Your task to perform on an android device: clear all cookies in the chrome app Image 0: 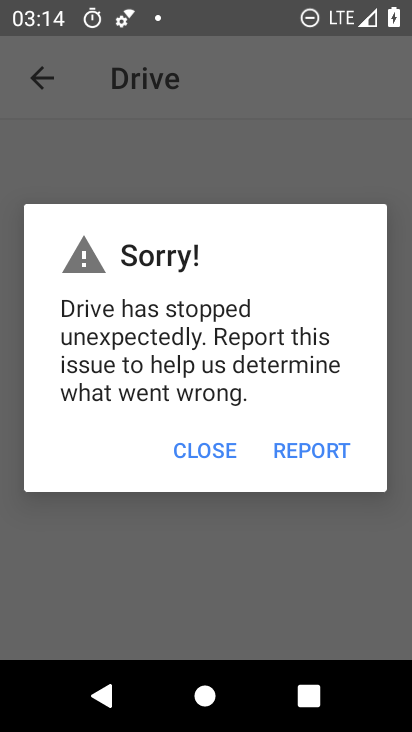
Step 0: press home button
Your task to perform on an android device: clear all cookies in the chrome app Image 1: 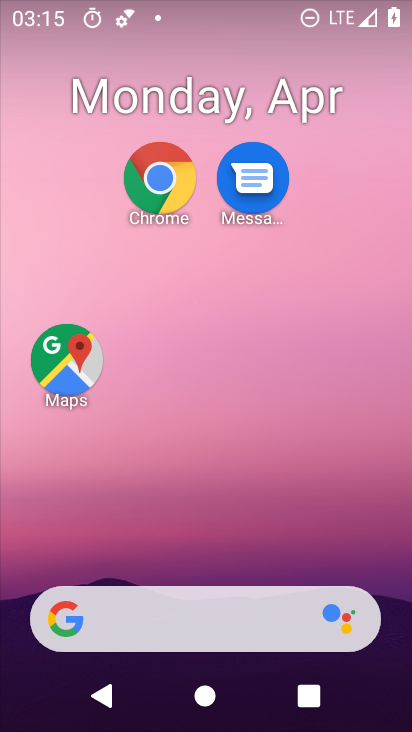
Step 1: drag from (277, 547) to (251, 0)
Your task to perform on an android device: clear all cookies in the chrome app Image 2: 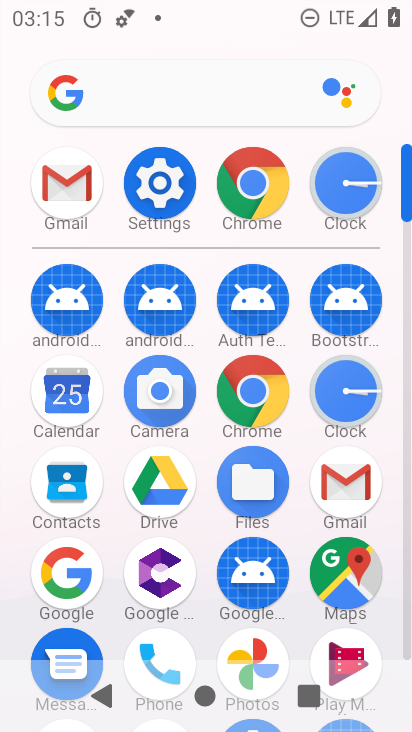
Step 2: click (266, 405)
Your task to perform on an android device: clear all cookies in the chrome app Image 3: 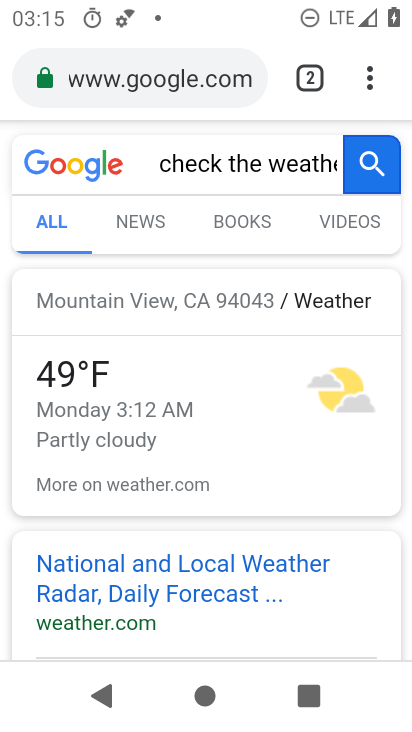
Step 3: drag from (367, 74) to (118, 525)
Your task to perform on an android device: clear all cookies in the chrome app Image 4: 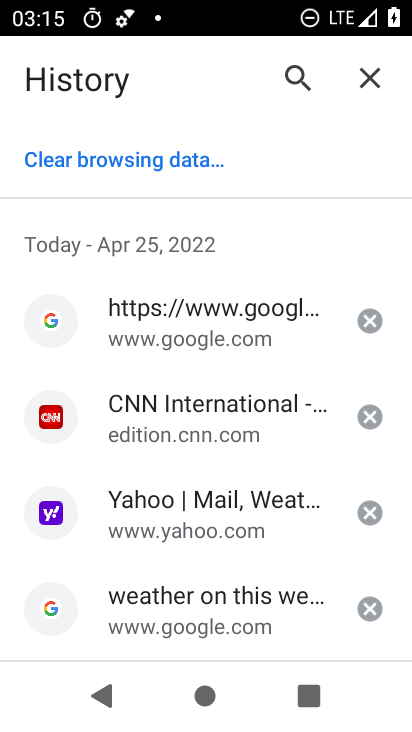
Step 4: click (130, 154)
Your task to perform on an android device: clear all cookies in the chrome app Image 5: 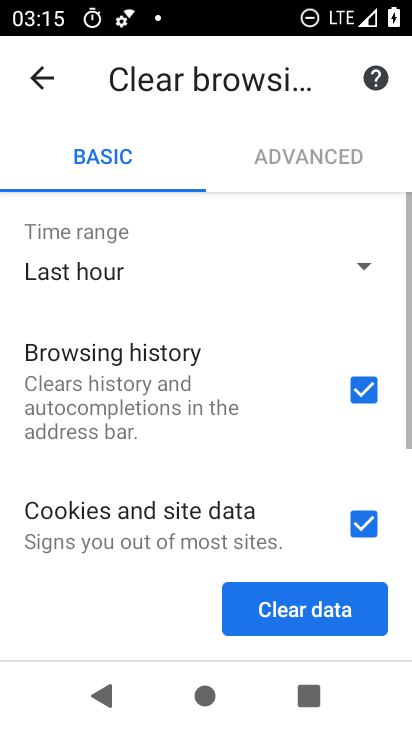
Step 5: click (276, 620)
Your task to perform on an android device: clear all cookies in the chrome app Image 6: 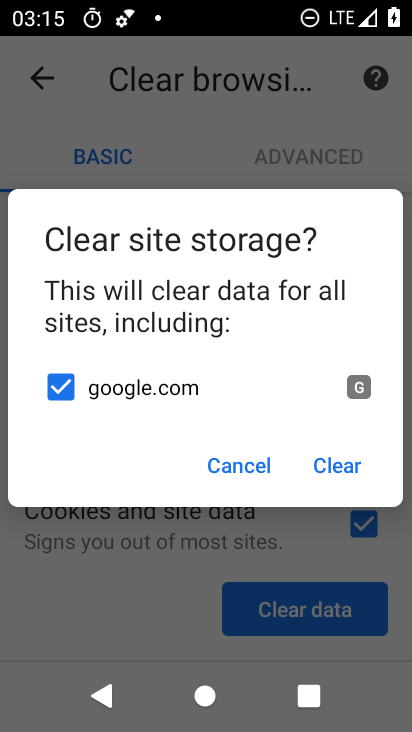
Step 6: click (330, 460)
Your task to perform on an android device: clear all cookies in the chrome app Image 7: 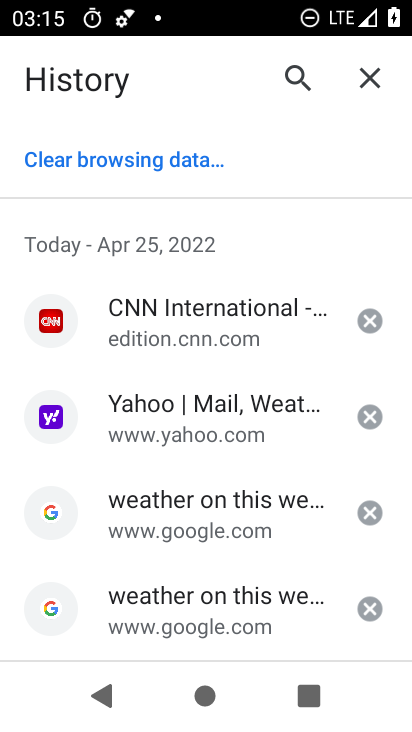
Step 7: click (370, 319)
Your task to perform on an android device: clear all cookies in the chrome app Image 8: 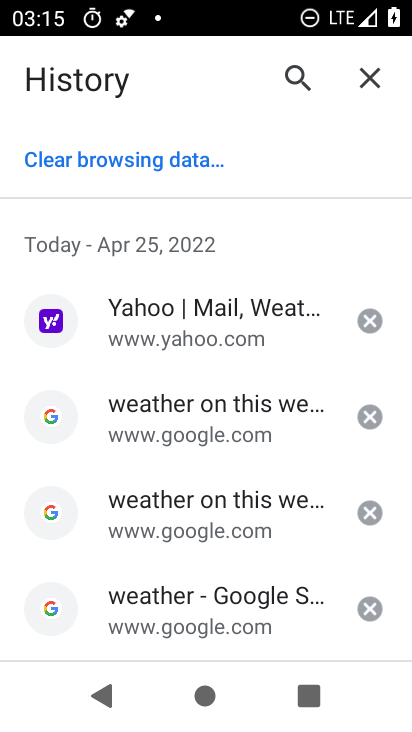
Step 8: click (366, 320)
Your task to perform on an android device: clear all cookies in the chrome app Image 9: 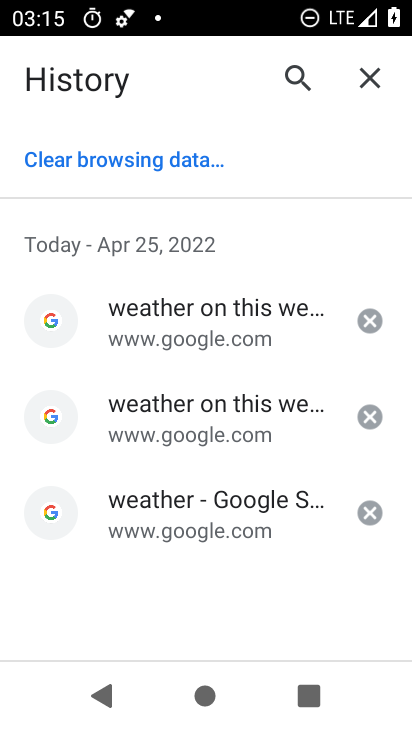
Step 9: click (366, 320)
Your task to perform on an android device: clear all cookies in the chrome app Image 10: 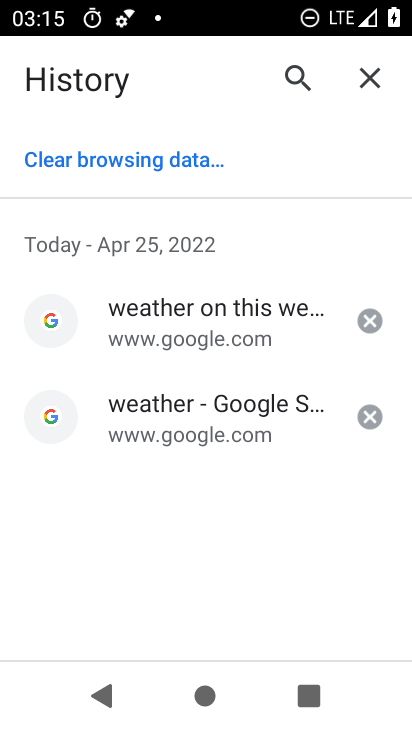
Step 10: click (367, 313)
Your task to perform on an android device: clear all cookies in the chrome app Image 11: 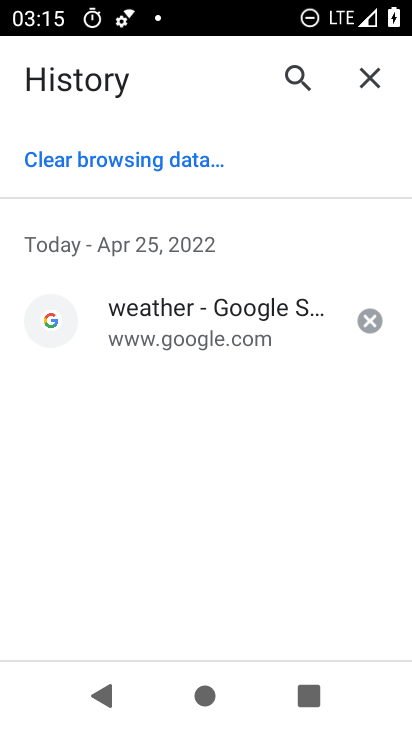
Step 11: click (370, 318)
Your task to perform on an android device: clear all cookies in the chrome app Image 12: 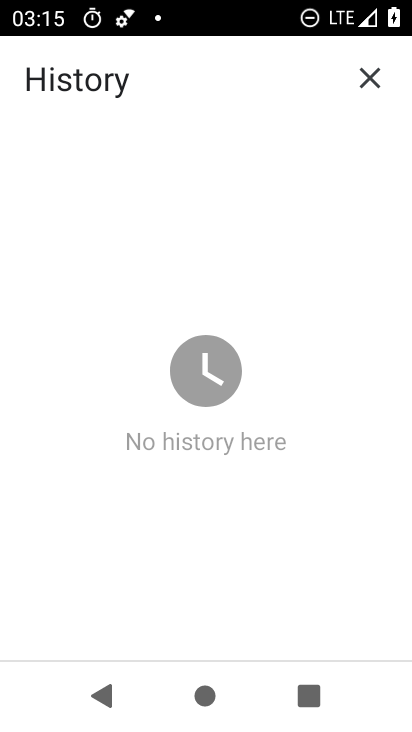
Step 12: task complete